Your task to perform on an android device: Open calendar and show me the first week of next month Image 0: 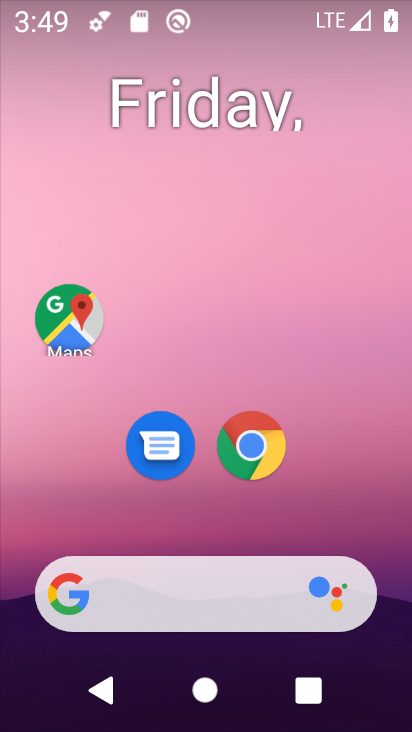
Step 0: drag from (401, 588) to (305, 199)
Your task to perform on an android device: Open calendar and show me the first week of next month Image 1: 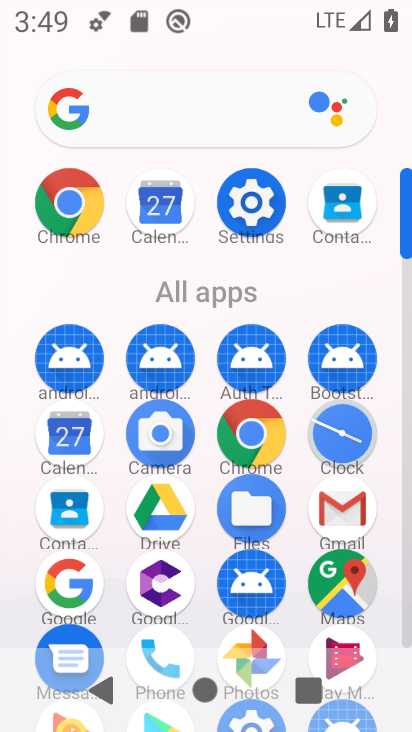
Step 1: click (67, 447)
Your task to perform on an android device: Open calendar and show me the first week of next month Image 2: 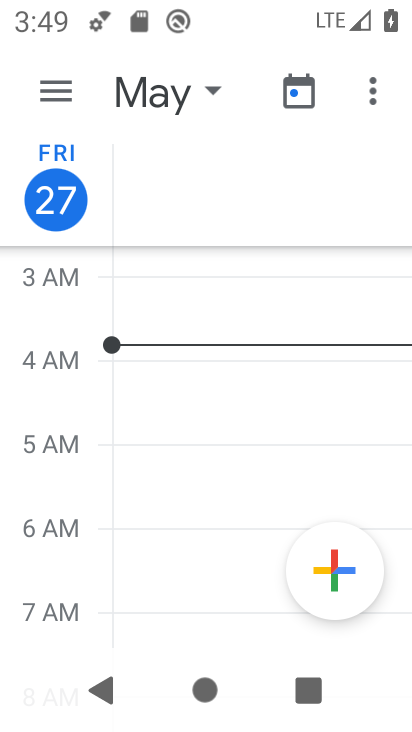
Step 2: click (48, 86)
Your task to perform on an android device: Open calendar and show me the first week of next month Image 3: 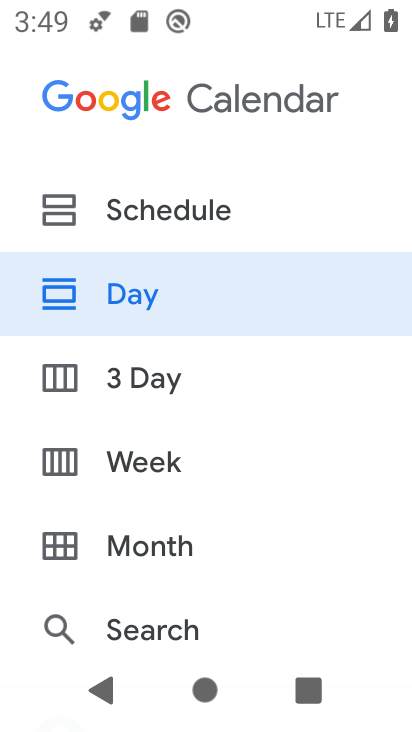
Step 3: click (180, 445)
Your task to perform on an android device: Open calendar and show me the first week of next month Image 4: 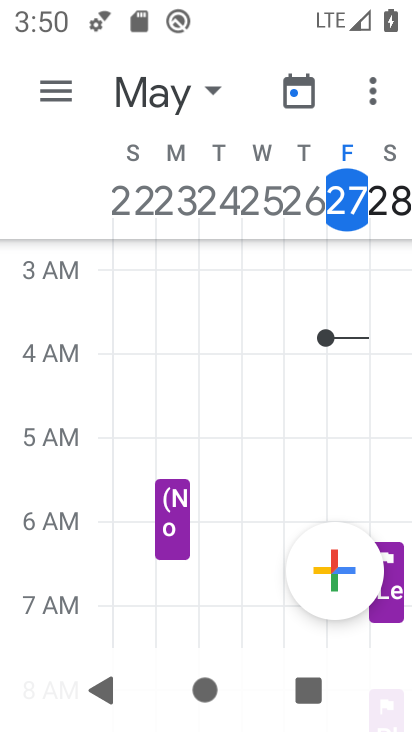
Step 4: click (198, 104)
Your task to perform on an android device: Open calendar and show me the first week of next month Image 5: 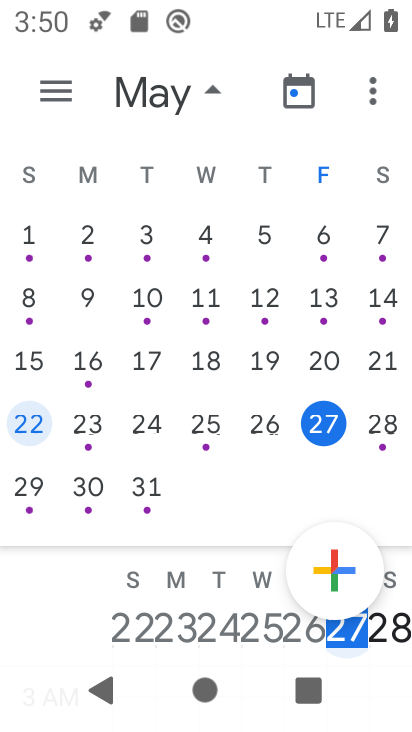
Step 5: task complete